Your task to perform on an android device: Open Chrome and go to the settings page Image 0: 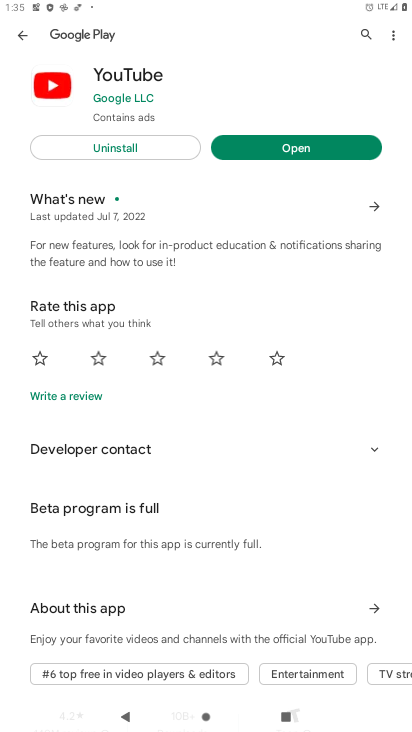
Step 0: press home button
Your task to perform on an android device: Open Chrome and go to the settings page Image 1: 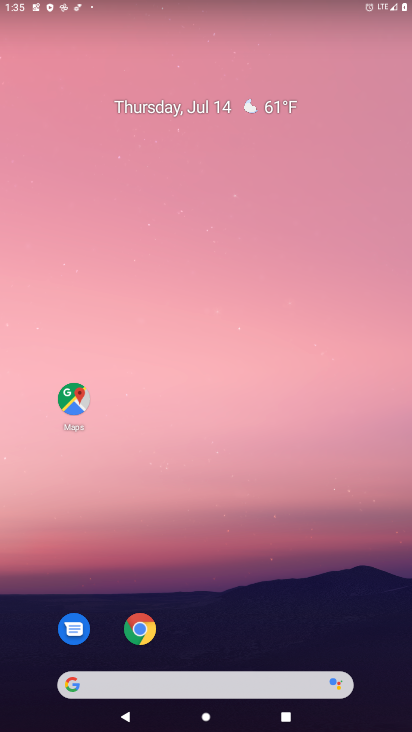
Step 1: click (141, 638)
Your task to perform on an android device: Open Chrome and go to the settings page Image 2: 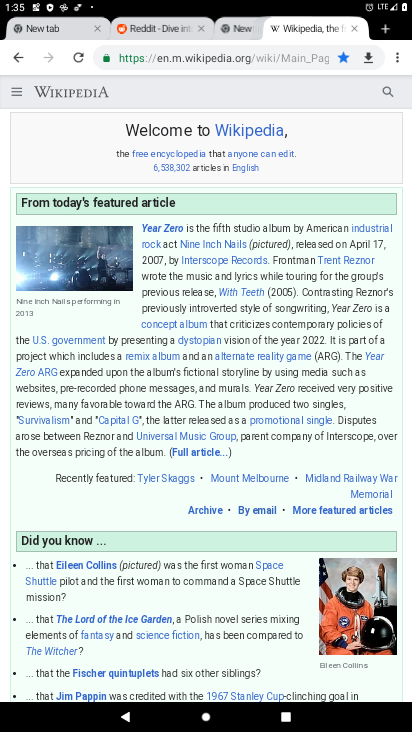
Step 2: click (396, 52)
Your task to perform on an android device: Open Chrome and go to the settings page Image 3: 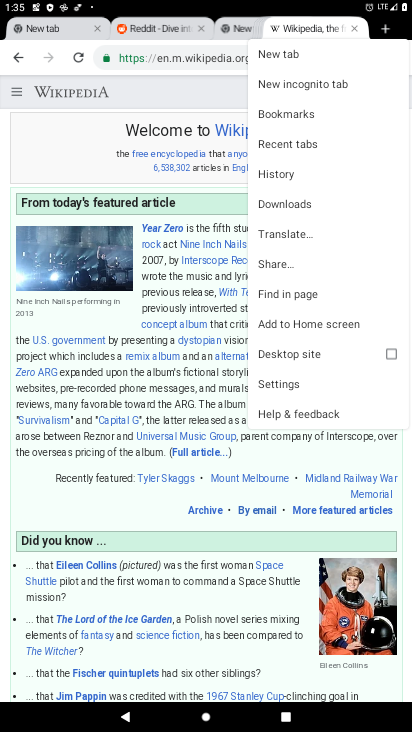
Step 3: click (283, 382)
Your task to perform on an android device: Open Chrome and go to the settings page Image 4: 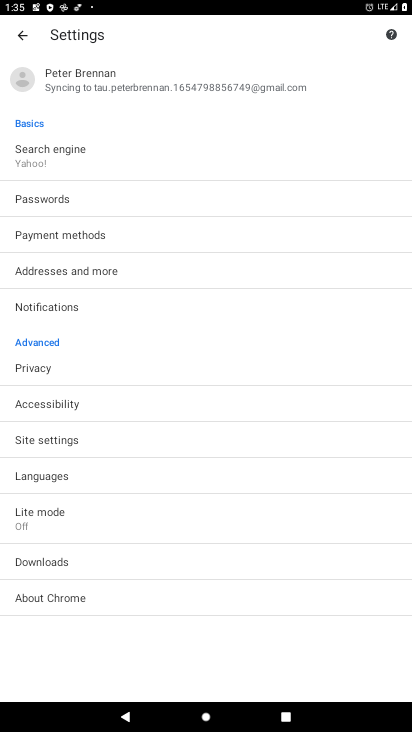
Step 4: task complete